Your task to perform on an android device: visit the assistant section in the google photos Image 0: 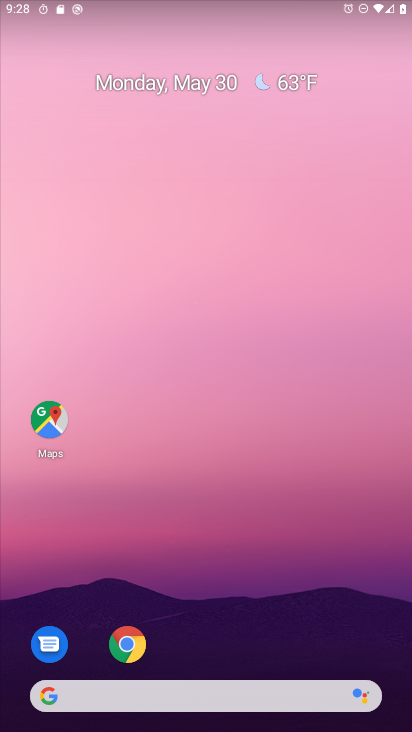
Step 0: drag from (218, 638) to (214, 25)
Your task to perform on an android device: visit the assistant section in the google photos Image 1: 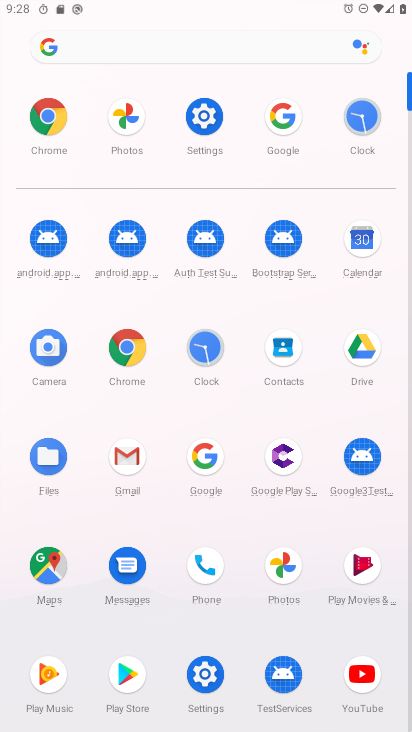
Step 1: click (125, 111)
Your task to perform on an android device: visit the assistant section in the google photos Image 2: 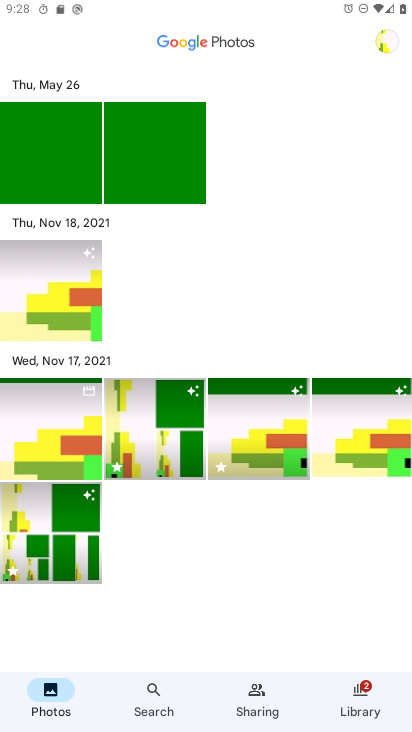
Step 2: task complete